Your task to perform on an android device: What's on my calendar tomorrow? Image 0: 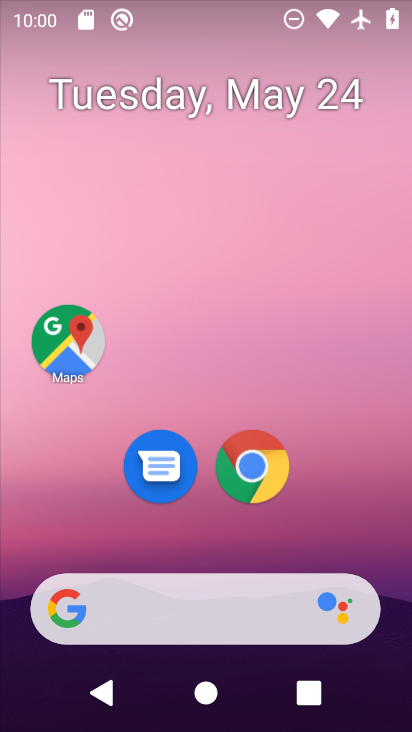
Step 0: drag from (158, 540) to (158, 63)
Your task to perform on an android device: What's on my calendar tomorrow? Image 1: 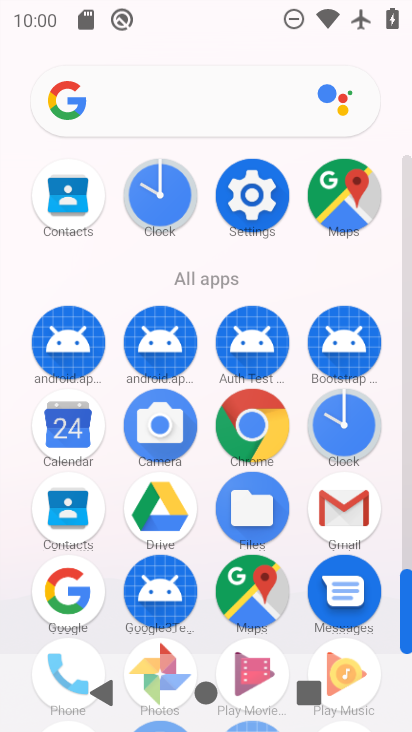
Step 1: click (74, 428)
Your task to perform on an android device: What's on my calendar tomorrow? Image 2: 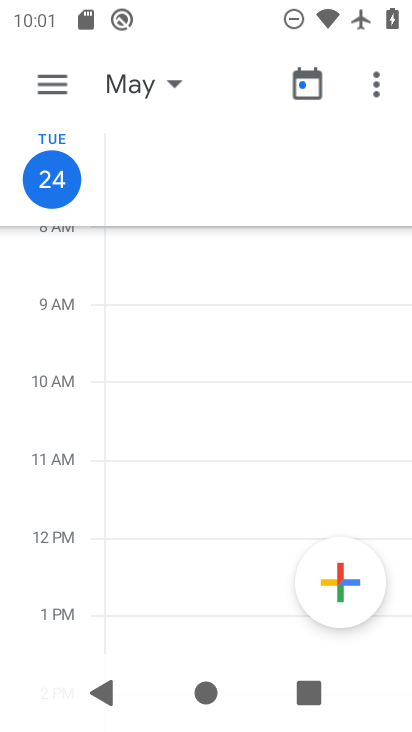
Step 2: click (59, 72)
Your task to perform on an android device: What's on my calendar tomorrow? Image 3: 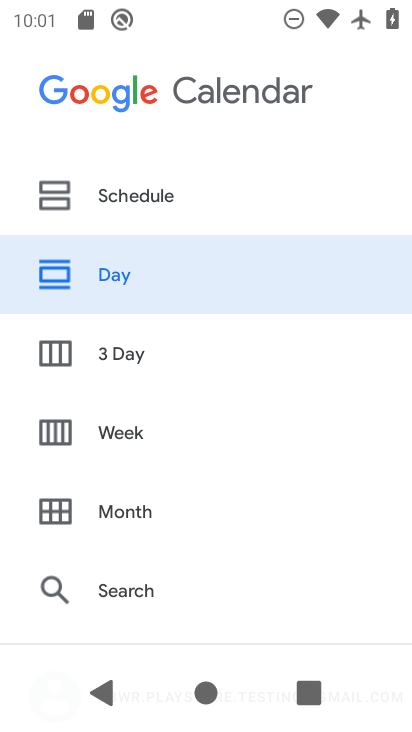
Step 3: click (142, 365)
Your task to perform on an android device: What's on my calendar tomorrow? Image 4: 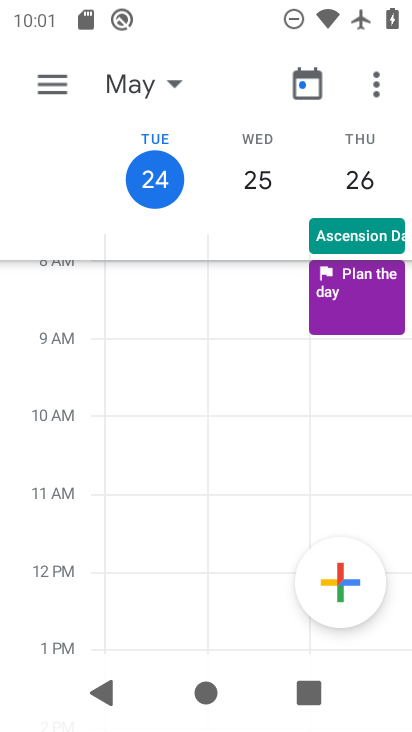
Step 4: task complete